Your task to perform on an android device: turn smart compose on in the gmail app Image 0: 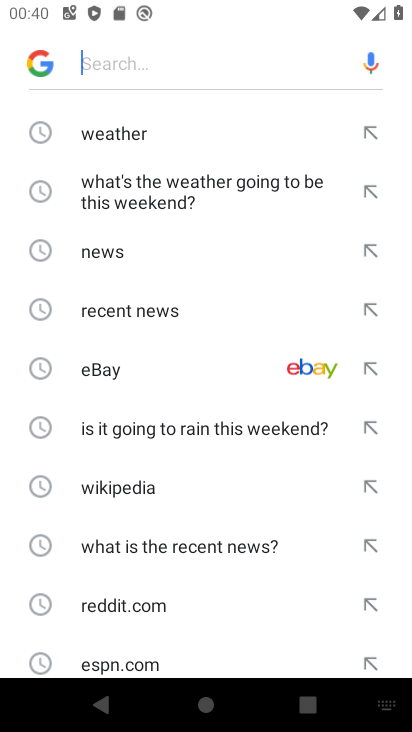
Step 0: press home button
Your task to perform on an android device: turn smart compose on in the gmail app Image 1: 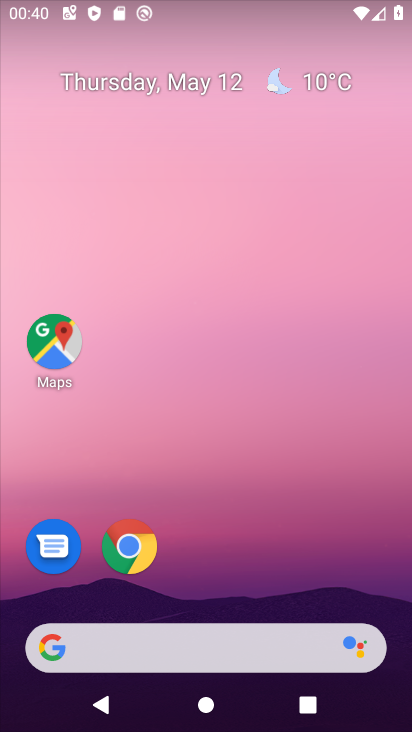
Step 1: drag from (153, 583) to (167, 264)
Your task to perform on an android device: turn smart compose on in the gmail app Image 2: 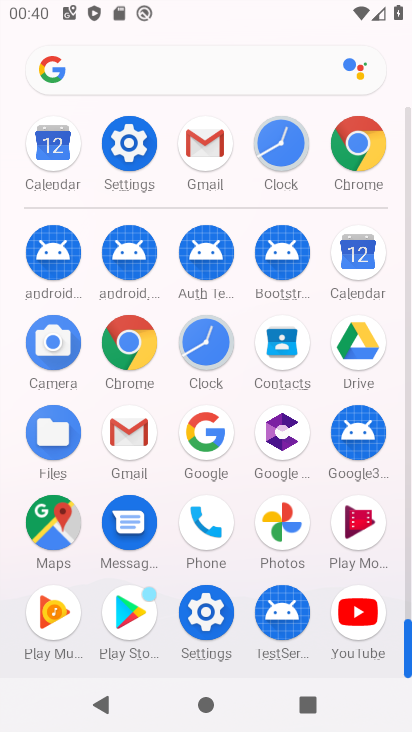
Step 2: click (194, 158)
Your task to perform on an android device: turn smart compose on in the gmail app Image 3: 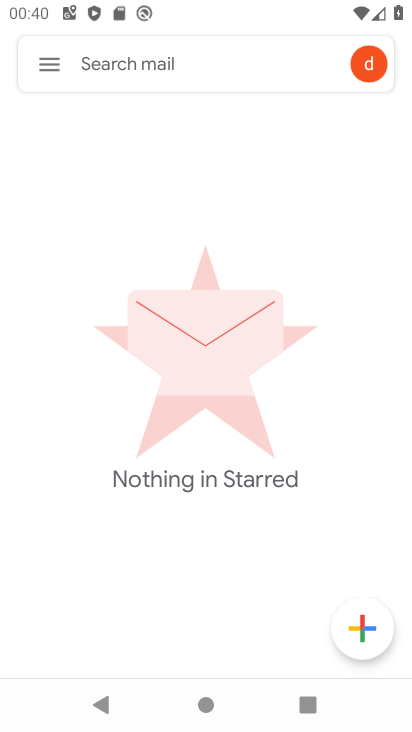
Step 3: click (43, 70)
Your task to perform on an android device: turn smart compose on in the gmail app Image 4: 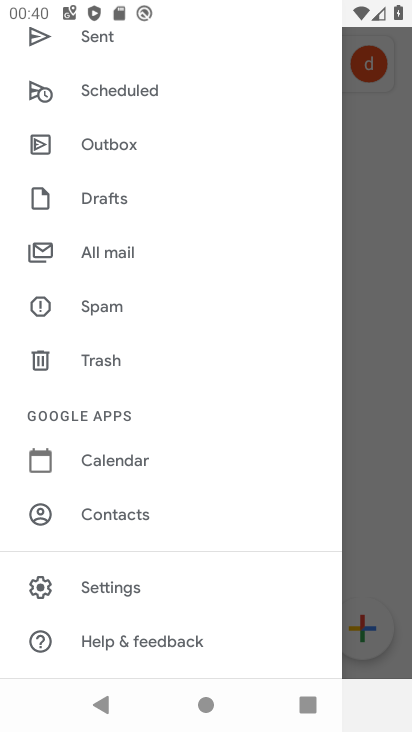
Step 4: click (127, 586)
Your task to perform on an android device: turn smart compose on in the gmail app Image 5: 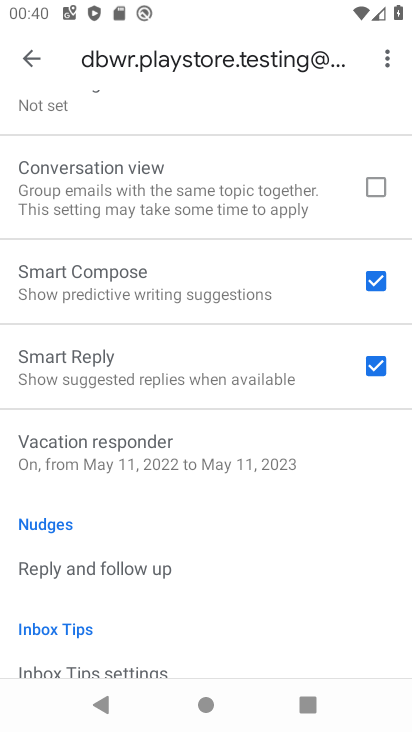
Step 5: task complete